Your task to perform on an android device: create a new album in the google photos Image 0: 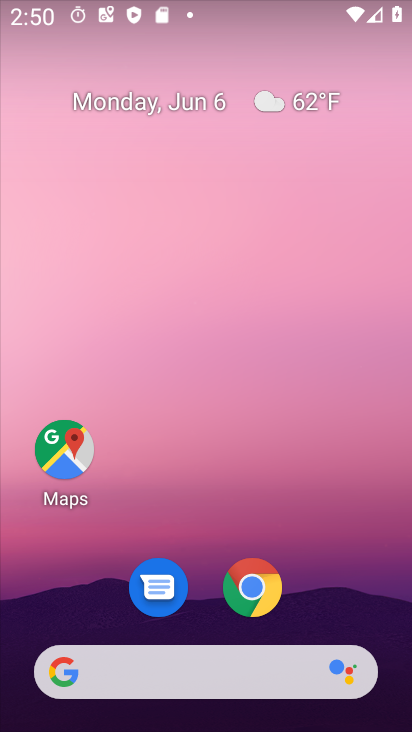
Step 0: drag from (321, 482) to (244, 8)
Your task to perform on an android device: create a new album in the google photos Image 1: 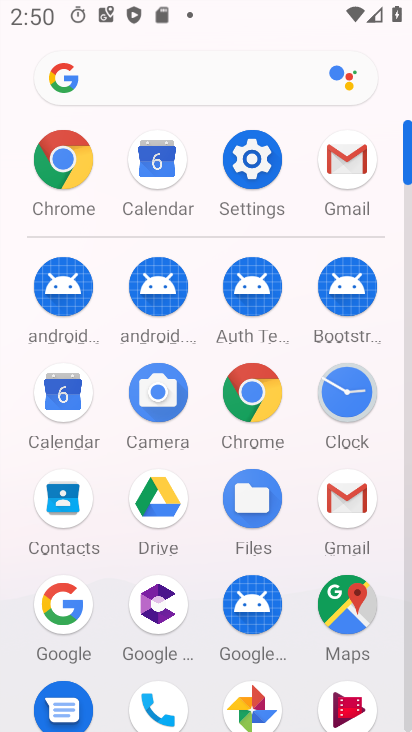
Step 1: click (31, 208)
Your task to perform on an android device: create a new album in the google photos Image 2: 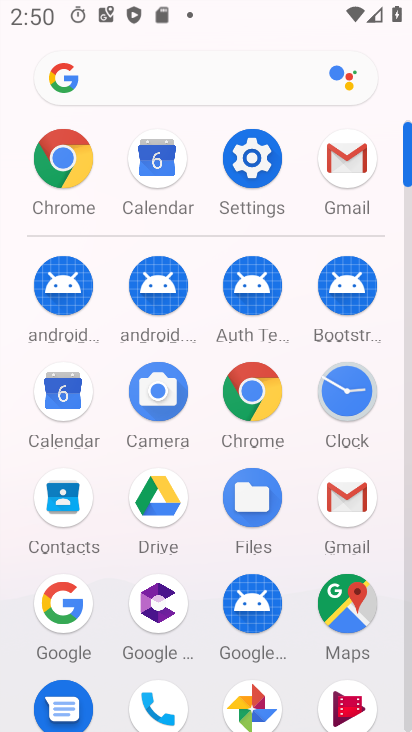
Step 2: click (247, 704)
Your task to perform on an android device: create a new album in the google photos Image 3: 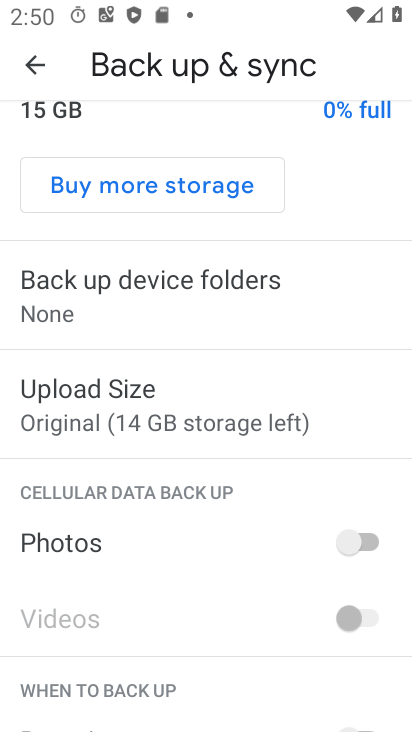
Step 3: click (29, 59)
Your task to perform on an android device: create a new album in the google photos Image 4: 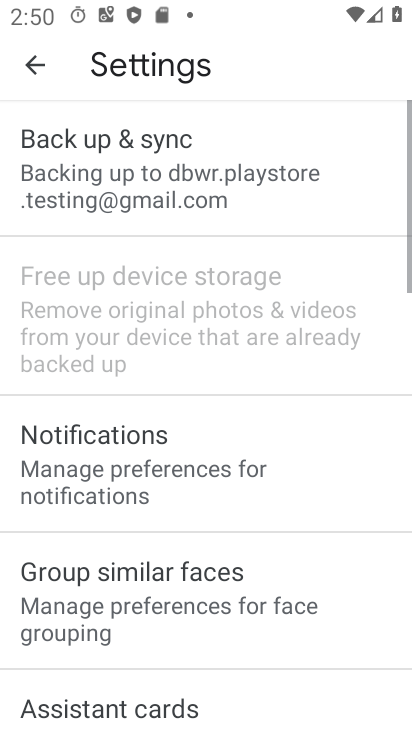
Step 4: click (29, 59)
Your task to perform on an android device: create a new album in the google photos Image 5: 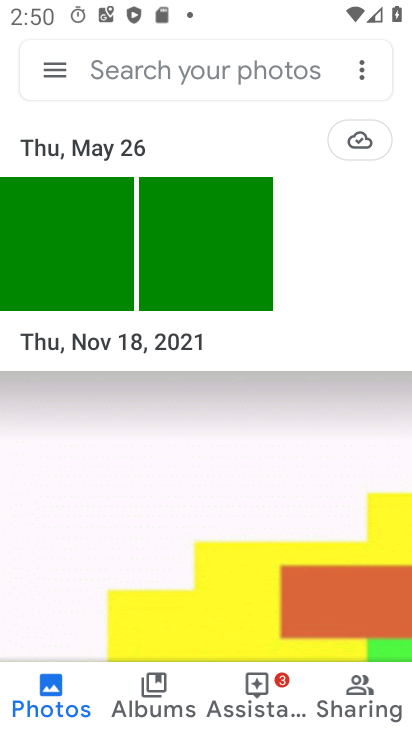
Step 5: drag from (194, 313) to (193, 255)
Your task to perform on an android device: create a new album in the google photos Image 6: 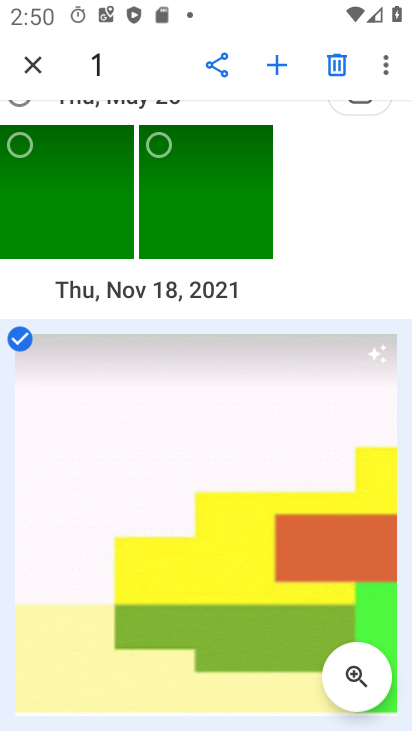
Step 6: click (283, 55)
Your task to perform on an android device: create a new album in the google photos Image 7: 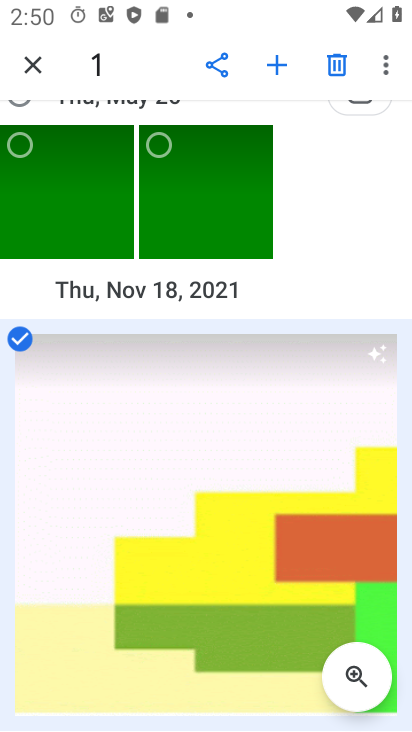
Step 7: click (279, 61)
Your task to perform on an android device: create a new album in the google photos Image 8: 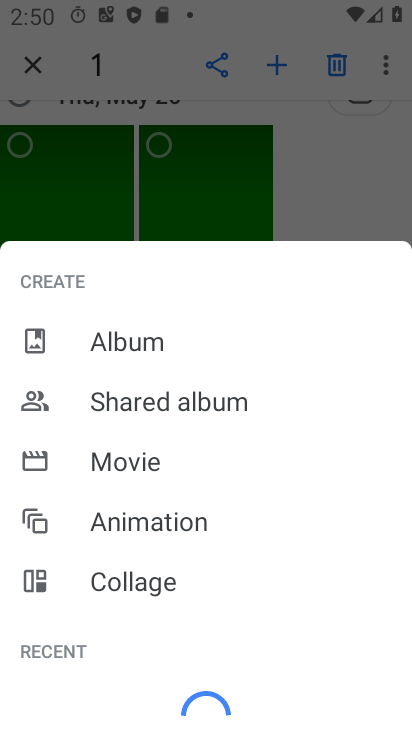
Step 8: click (135, 328)
Your task to perform on an android device: create a new album in the google photos Image 9: 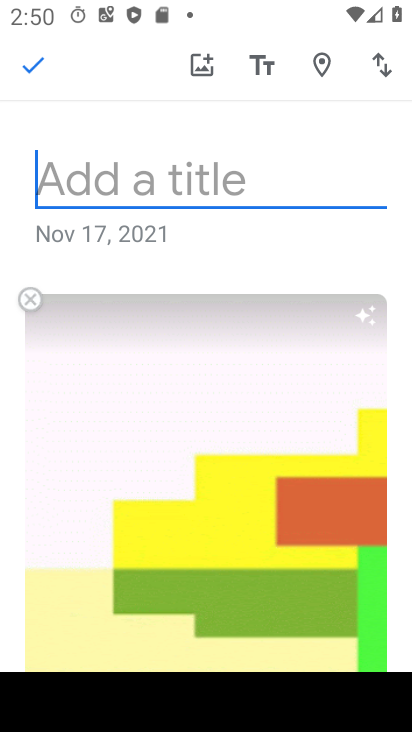
Step 9: type "dfgm"
Your task to perform on an android device: create a new album in the google photos Image 10: 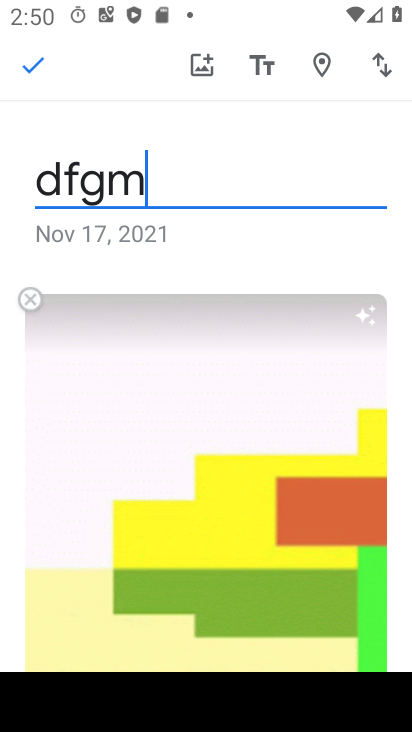
Step 10: type ""
Your task to perform on an android device: create a new album in the google photos Image 11: 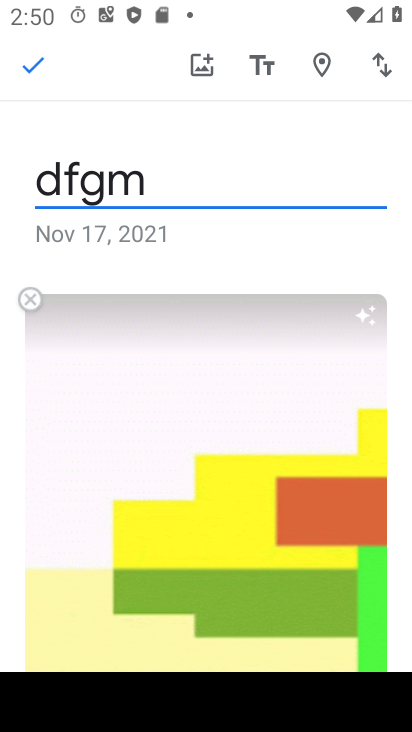
Step 11: click (36, 62)
Your task to perform on an android device: create a new album in the google photos Image 12: 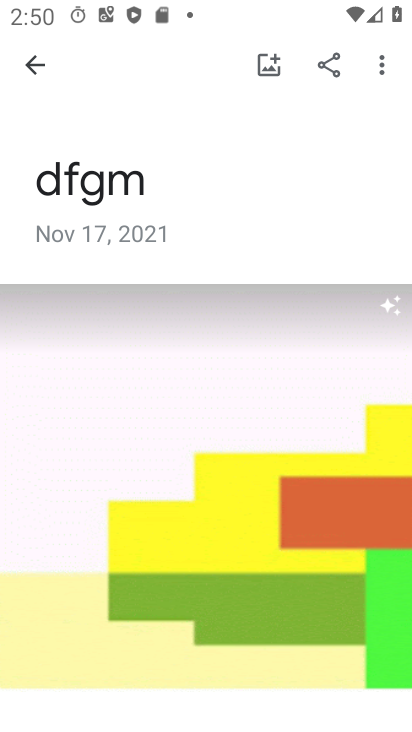
Step 12: task complete